Your task to perform on an android device: Open calendar and show me the second week of next month Image 0: 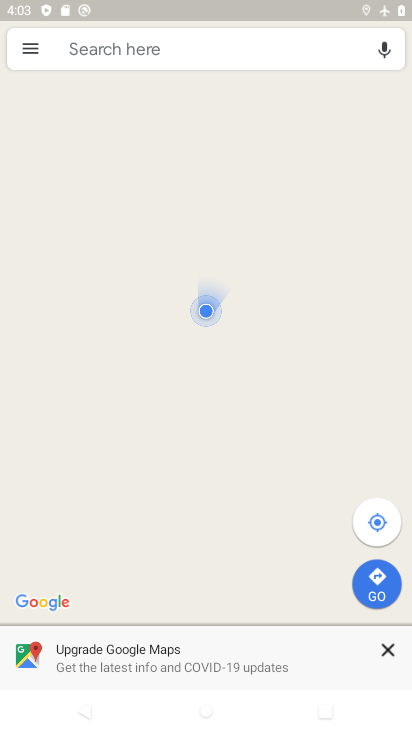
Step 0: press home button
Your task to perform on an android device: Open calendar and show me the second week of next month Image 1: 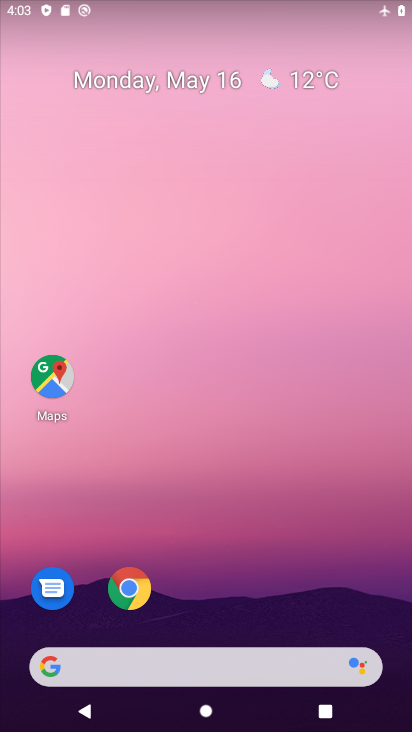
Step 1: drag from (261, 558) to (186, 51)
Your task to perform on an android device: Open calendar and show me the second week of next month Image 2: 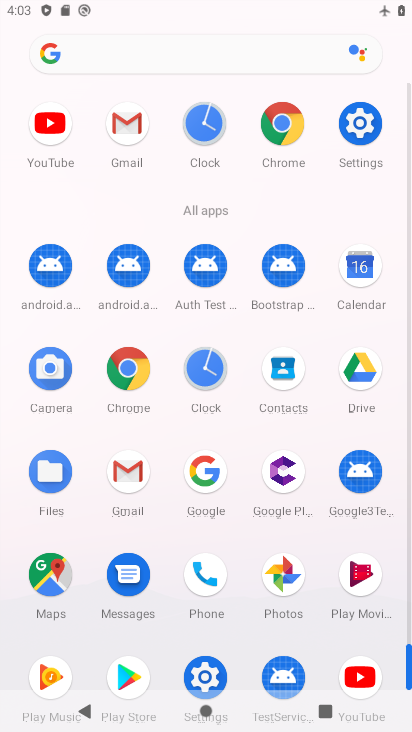
Step 2: click (353, 275)
Your task to perform on an android device: Open calendar and show me the second week of next month Image 3: 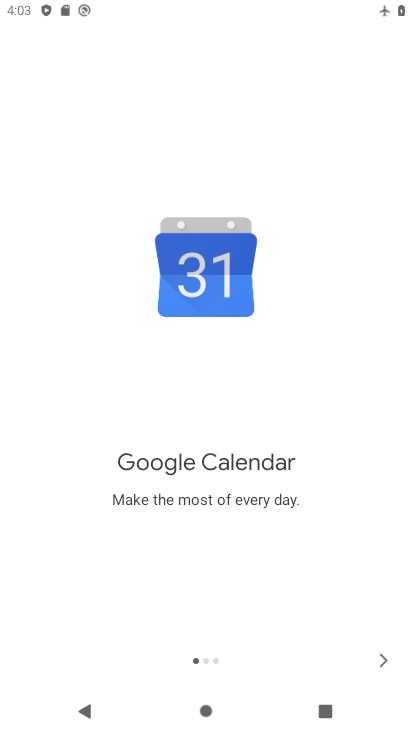
Step 3: click (383, 661)
Your task to perform on an android device: Open calendar and show me the second week of next month Image 4: 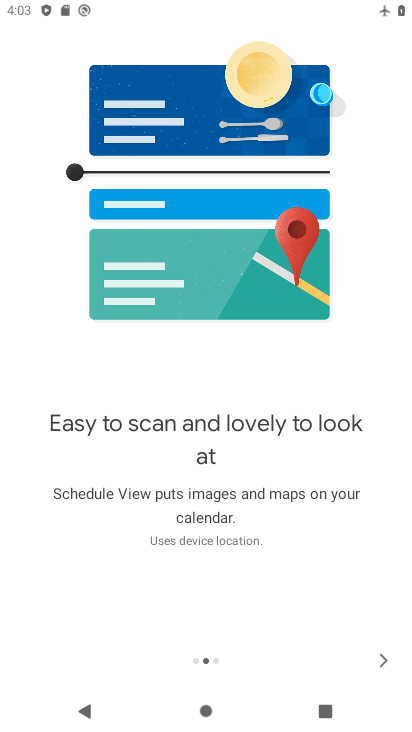
Step 4: click (383, 661)
Your task to perform on an android device: Open calendar and show me the second week of next month Image 5: 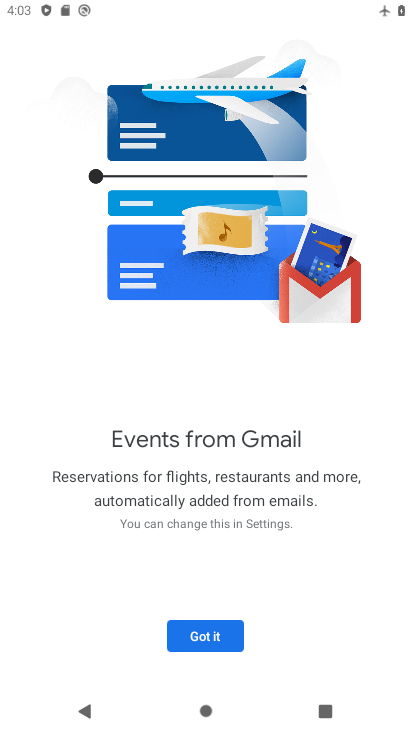
Step 5: click (211, 638)
Your task to perform on an android device: Open calendar and show me the second week of next month Image 6: 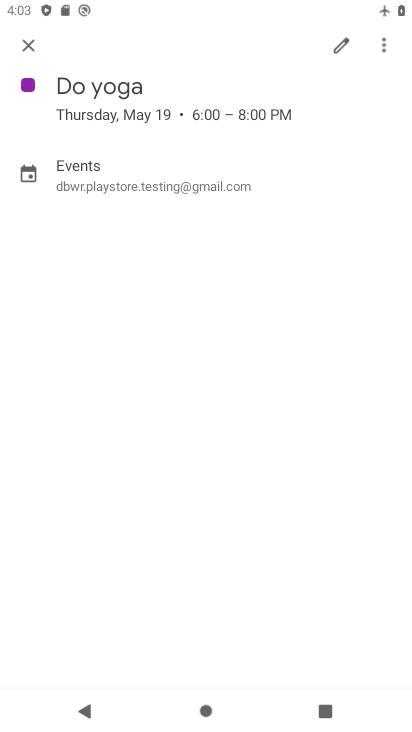
Step 6: click (29, 47)
Your task to perform on an android device: Open calendar and show me the second week of next month Image 7: 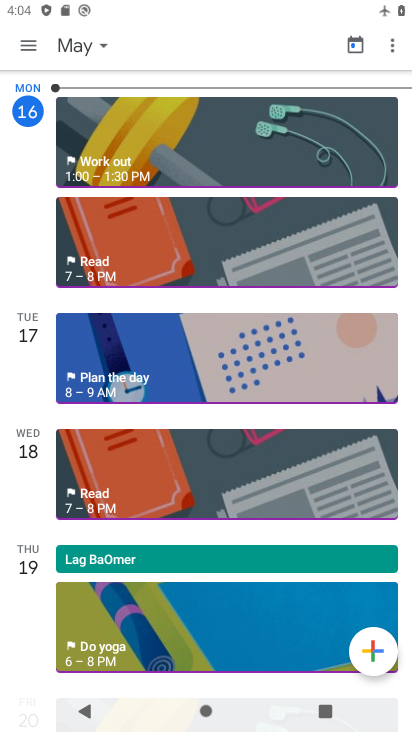
Step 7: click (23, 50)
Your task to perform on an android device: Open calendar and show me the second week of next month Image 8: 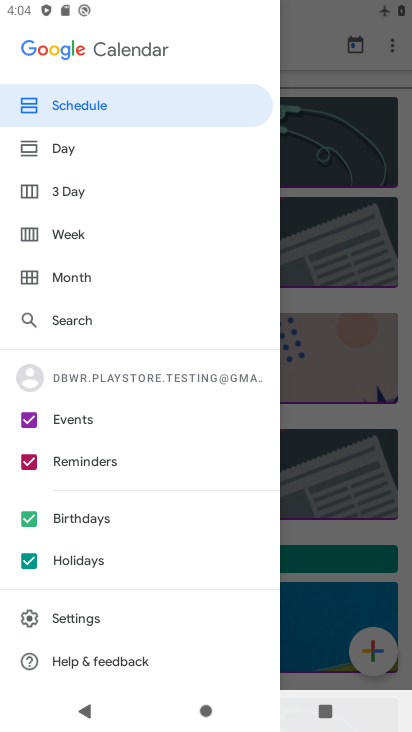
Step 8: click (67, 236)
Your task to perform on an android device: Open calendar and show me the second week of next month Image 9: 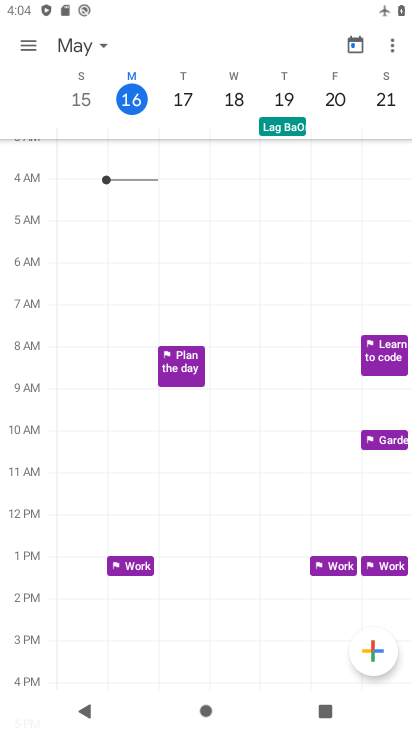
Step 9: click (95, 44)
Your task to perform on an android device: Open calendar and show me the second week of next month Image 10: 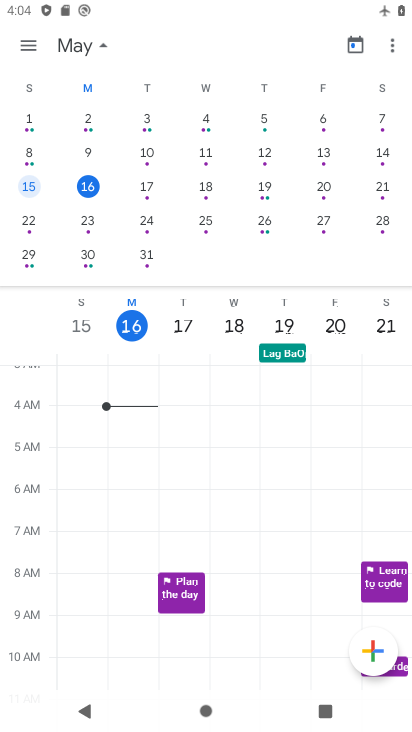
Step 10: drag from (369, 256) to (31, 239)
Your task to perform on an android device: Open calendar and show me the second week of next month Image 11: 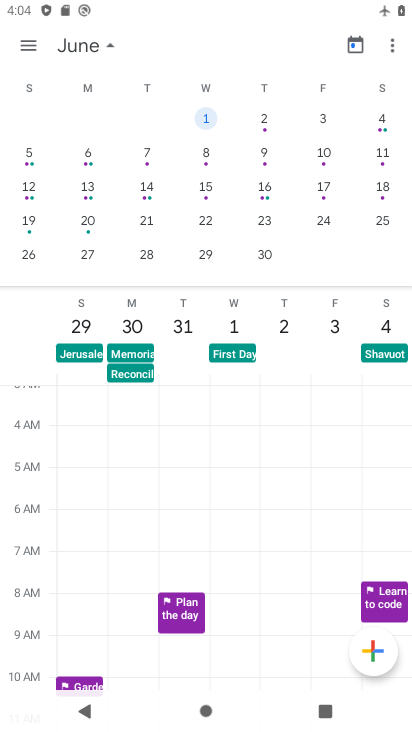
Step 11: click (216, 155)
Your task to perform on an android device: Open calendar and show me the second week of next month Image 12: 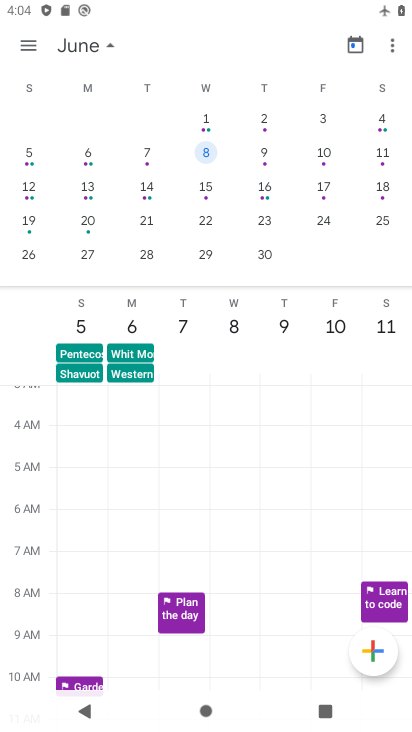
Step 12: task complete